Your task to perform on an android device: toggle notification dots Image 0: 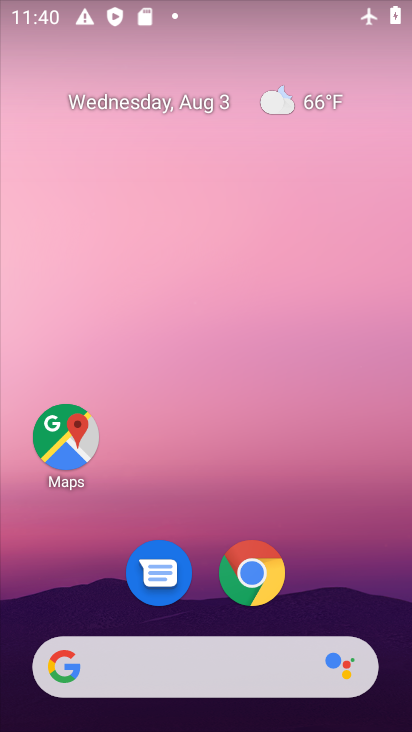
Step 0: drag from (319, 594) to (318, 41)
Your task to perform on an android device: toggle notification dots Image 1: 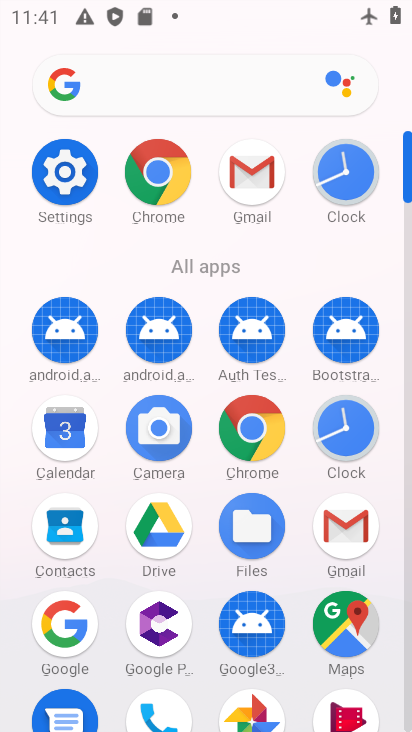
Step 1: click (71, 167)
Your task to perform on an android device: toggle notification dots Image 2: 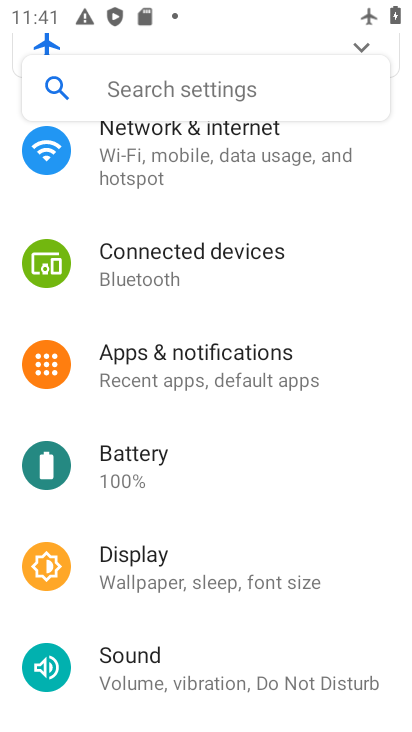
Step 2: click (161, 382)
Your task to perform on an android device: toggle notification dots Image 3: 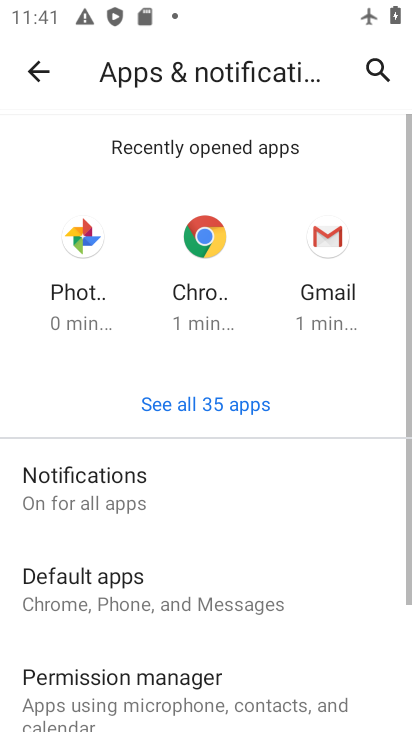
Step 3: click (106, 479)
Your task to perform on an android device: toggle notification dots Image 4: 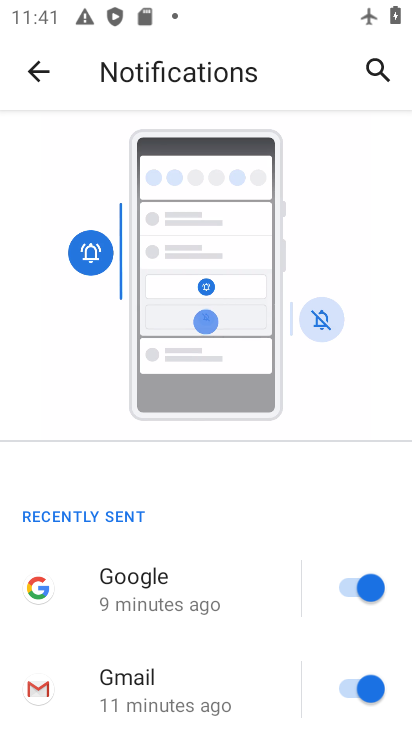
Step 4: drag from (295, 555) to (297, 166)
Your task to perform on an android device: toggle notification dots Image 5: 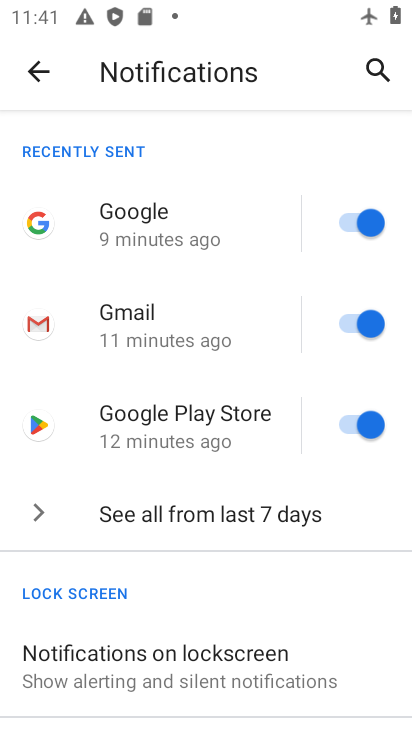
Step 5: drag from (231, 602) to (244, 230)
Your task to perform on an android device: toggle notification dots Image 6: 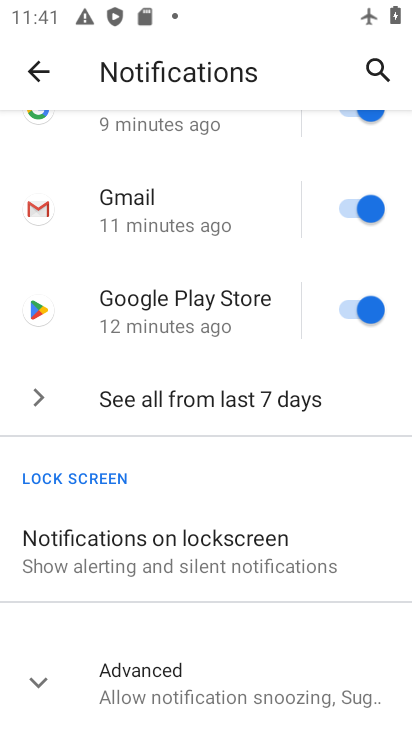
Step 6: drag from (267, 614) to (244, 180)
Your task to perform on an android device: toggle notification dots Image 7: 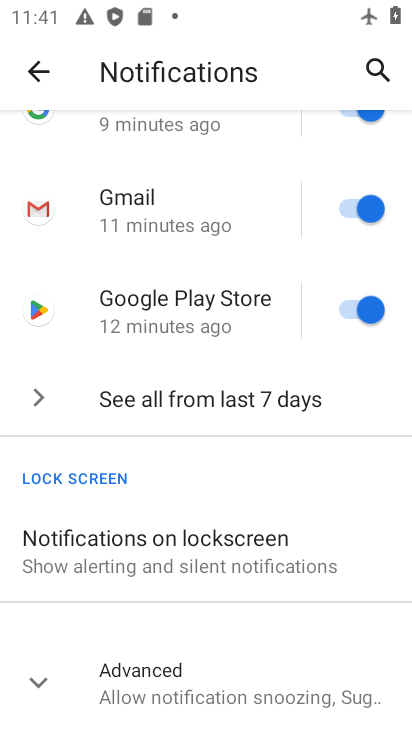
Step 7: click (149, 704)
Your task to perform on an android device: toggle notification dots Image 8: 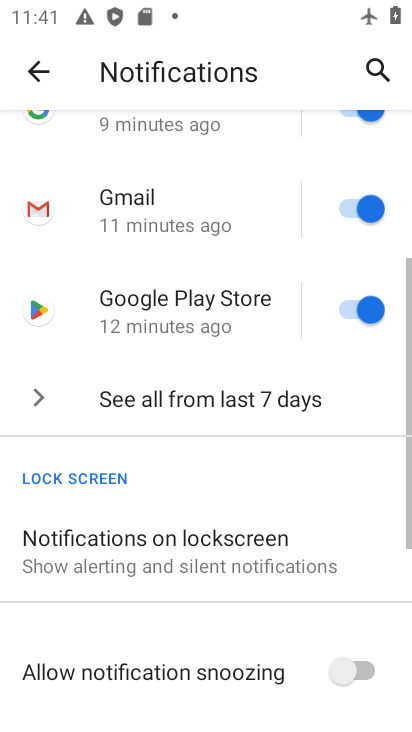
Step 8: drag from (174, 571) to (188, 81)
Your task to perform on an android device: toggle notification dots Image 9: 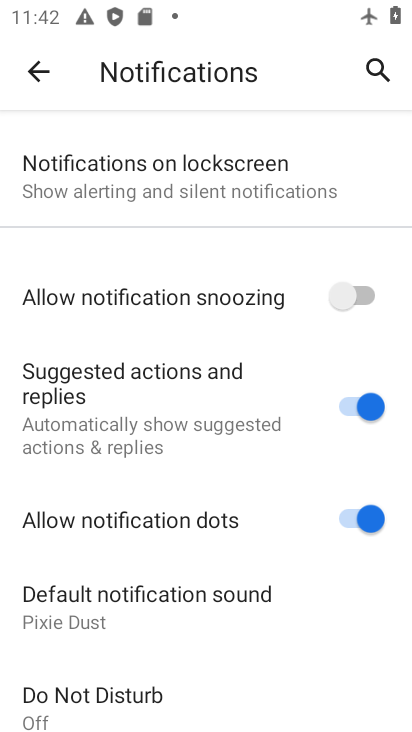
Step 9: click (329, 523)
Your task to perform on an android device: toggle notification dots Image 10: 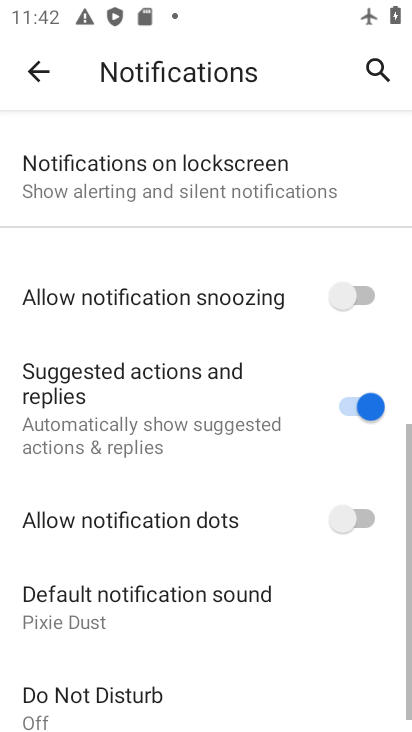
Step 10: task complete